Your task to perform on an android device: Open calendar and show me the third week of next month Image 0: 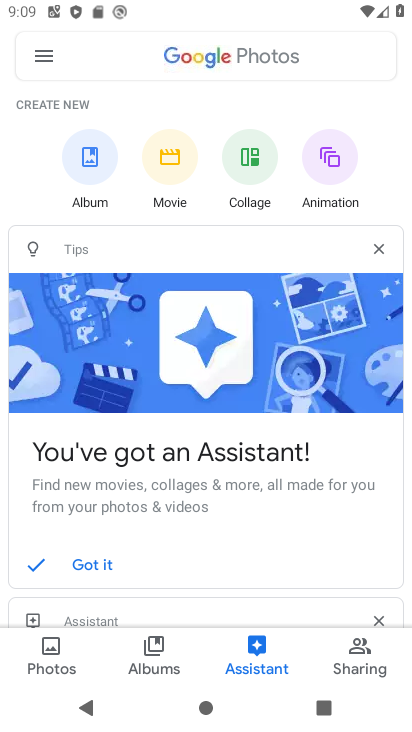
Step 0: press home button
Your task to perform on an android device: Open calendar and show me the third week of next month Image 1: 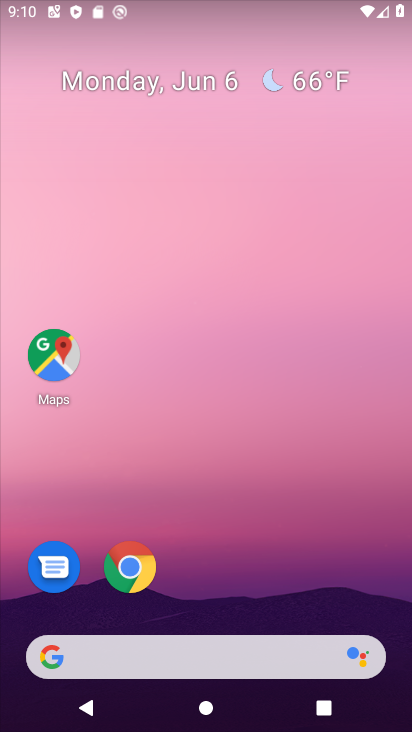
Step 1: click (105, 70)
Your task to perform on an android device: Open calendar and show me the third week of next month Image 2: 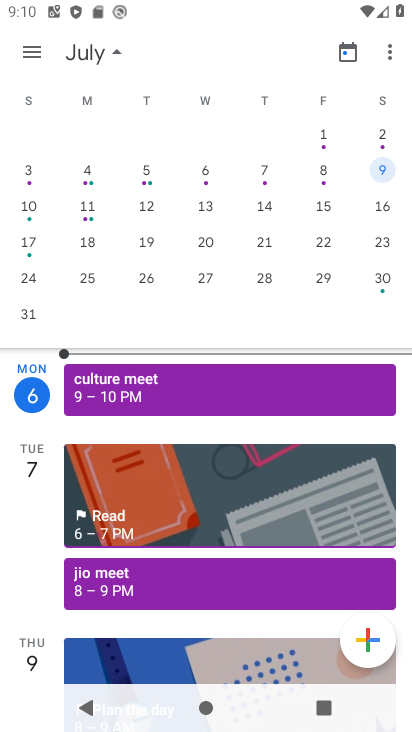
Step 2: click (333, 237)
Your task to perform on an android device: Open calendar and show me the third week of next month Image 3: 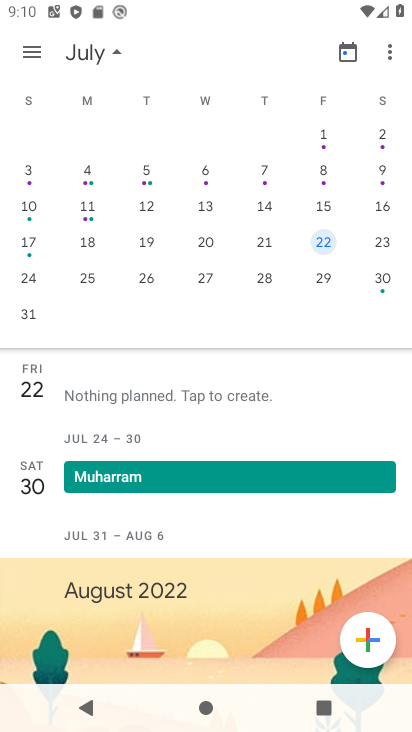
Step 3: task complete